Your task to perform on an android device: check google app version Image 0: 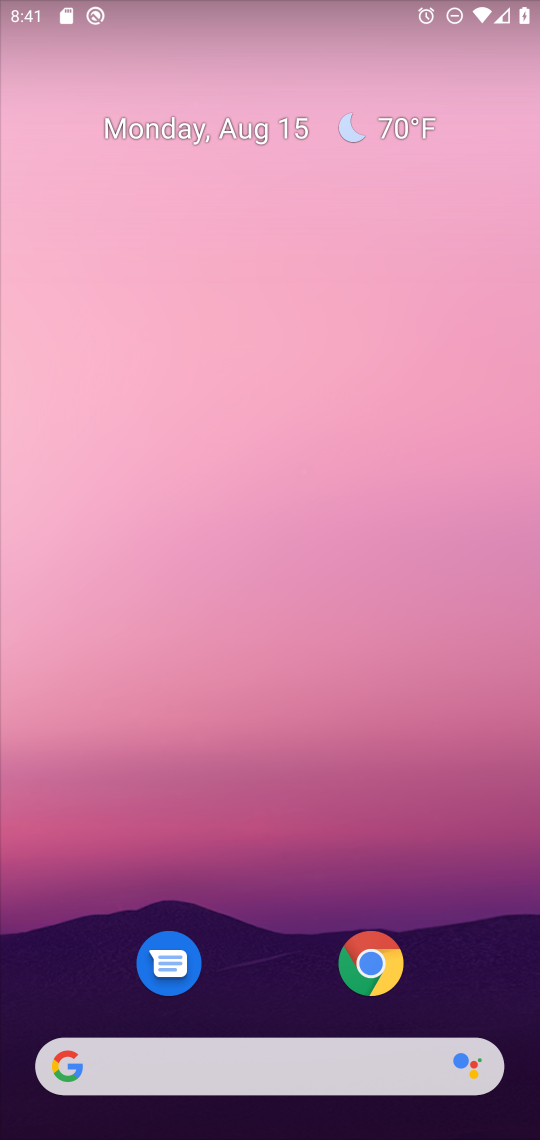
Step 0: click (285, 1068)
Your task to perform on an android device: check google app version Image 1: 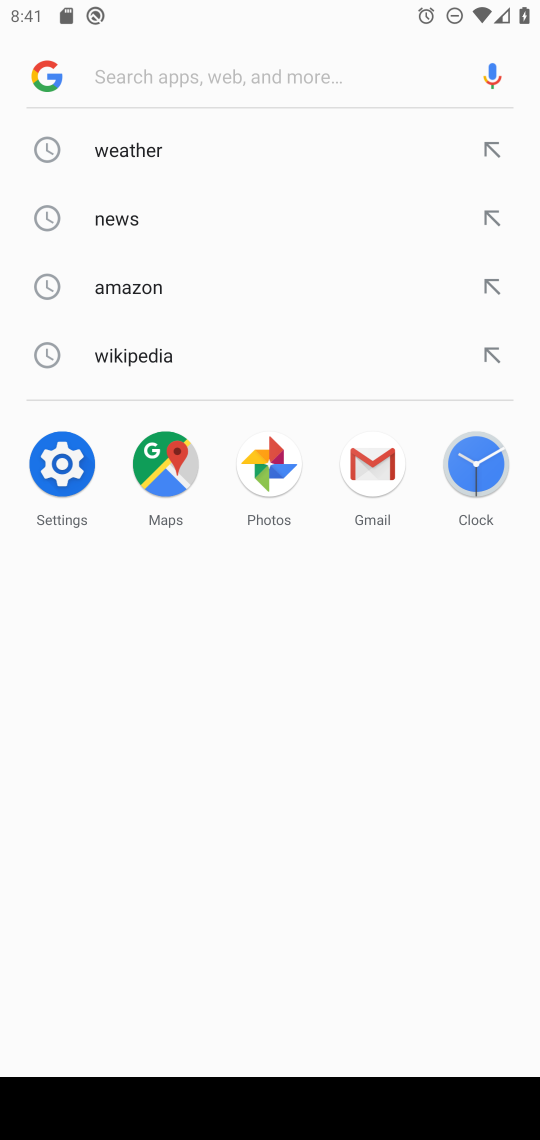
Step 1: click (52, 82)
Your task to perform on an android device: check google app version Image 2: 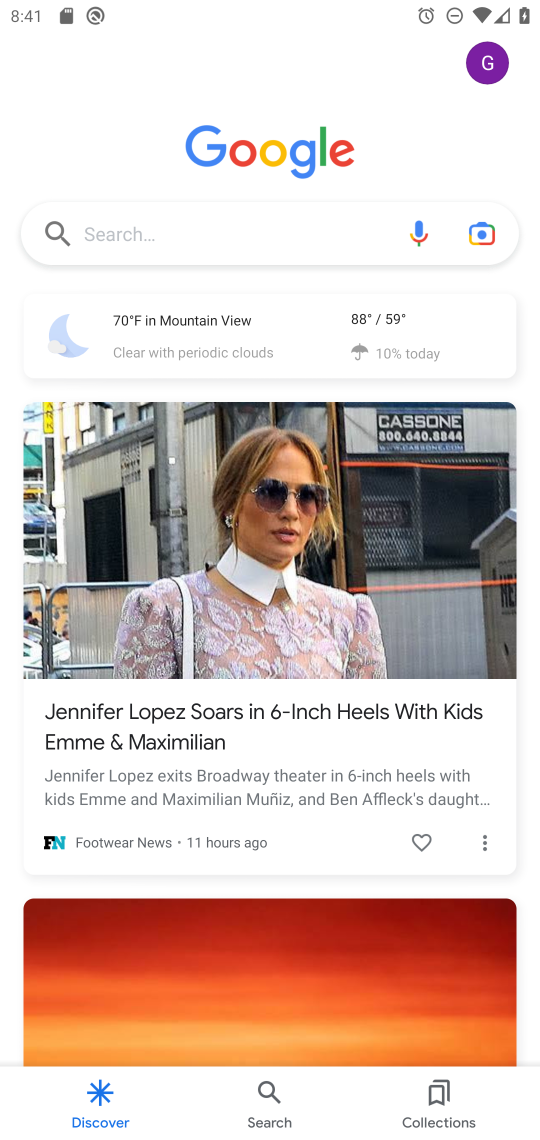
Step 2: click (483, 54)
Your task to perform on an android device: check google app version Image 3: 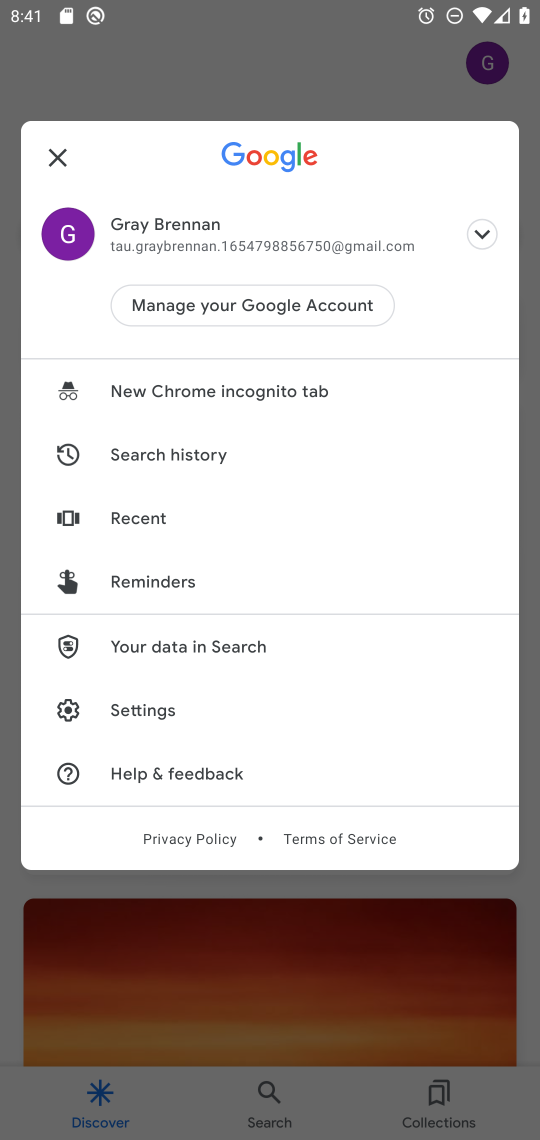
Step 3: click (210, 699)
Your task to perform on an android device: check google app version Image 4: 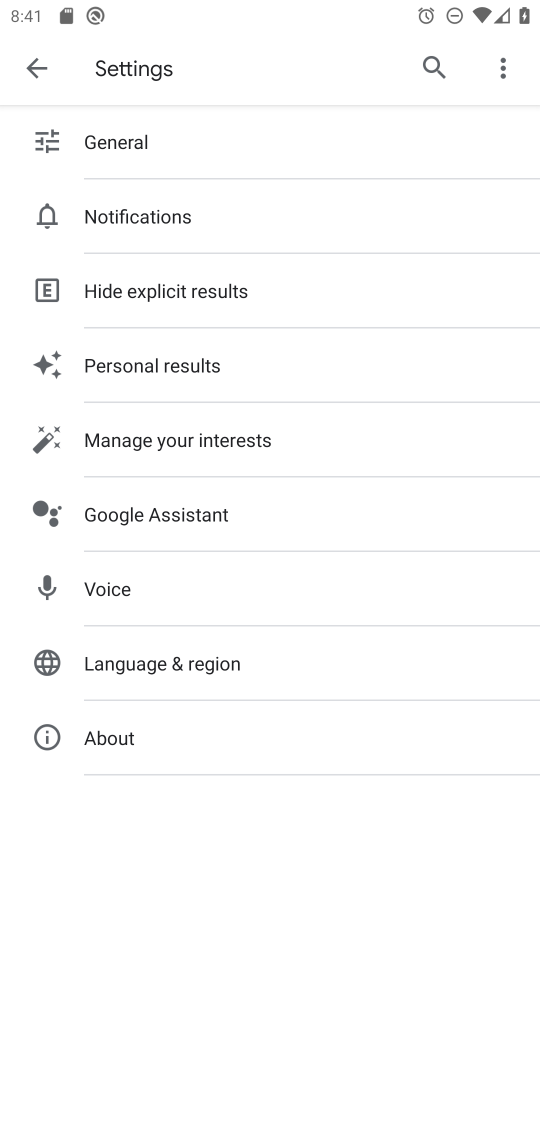
Step 4: click (197, 731)
Your task to perform on an android device: check google app version Image 5: 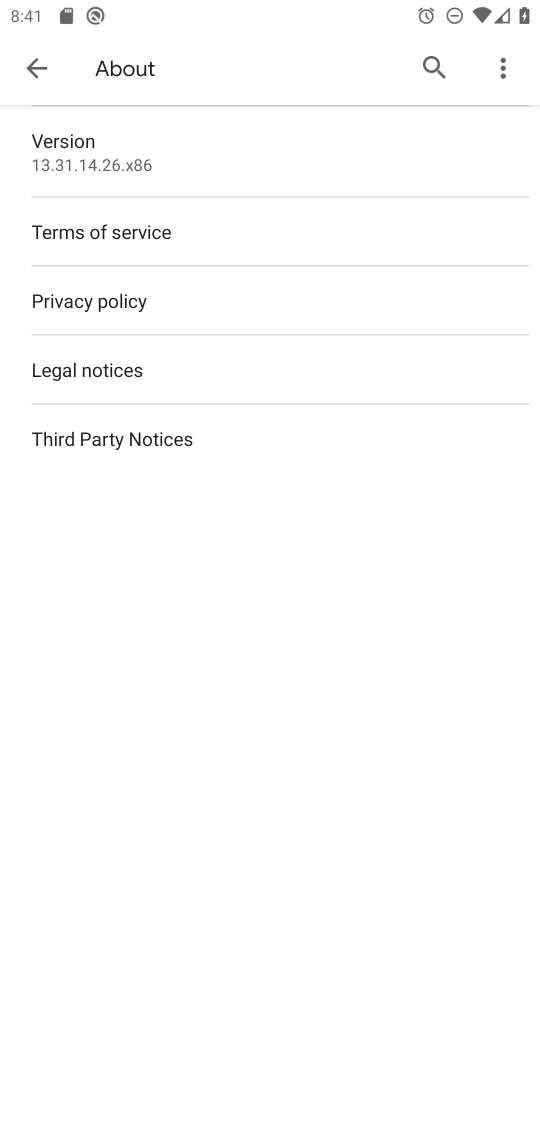
Step 5: click (302, 129)
Your task to perform on an android device: check google app version Image 6: 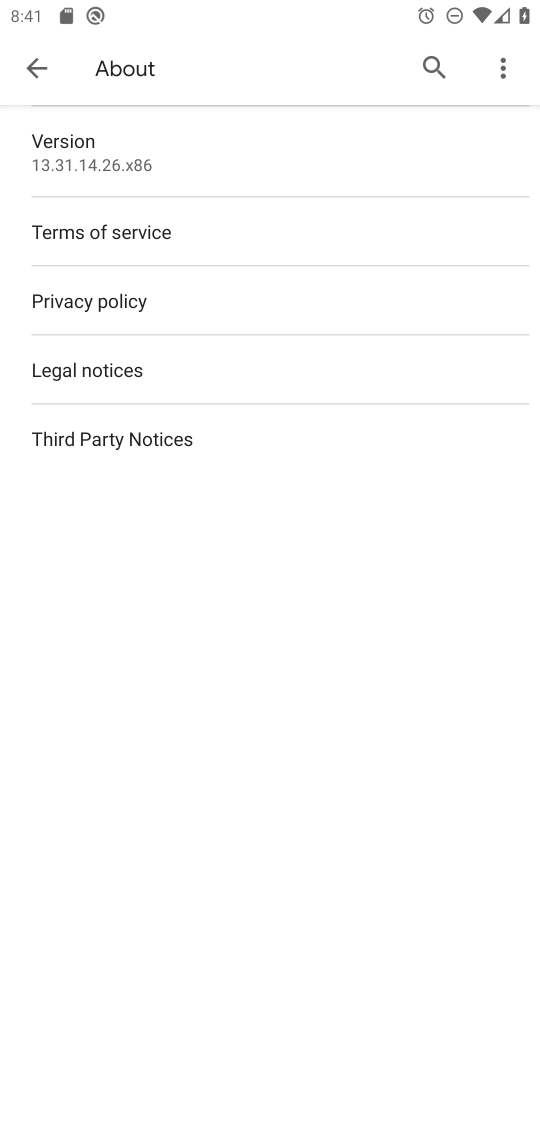
Step 6: task complete